Your task to perform on an android device: refresh tabs in the chrome app Image 0: 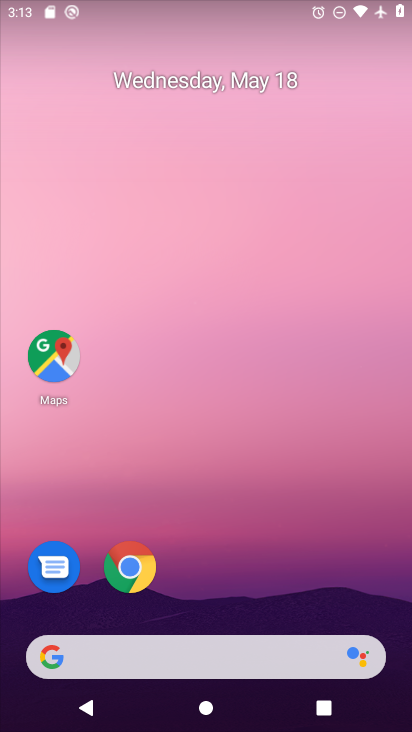
Step 0: drag from (276, 528) to (250, 224)
Your task to perform on an android device: refresh tabs in the chrome app Image 1: 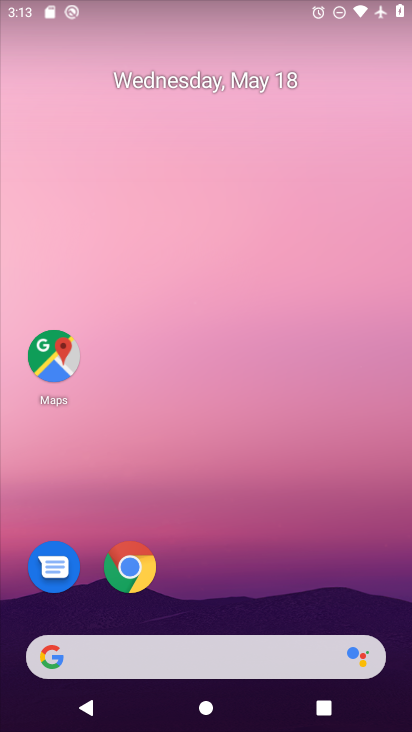
Step 1: drag from (234, 537) to (242, 224)
Your task to perform on an android device: refresh tabs in the chrome app Image 2: 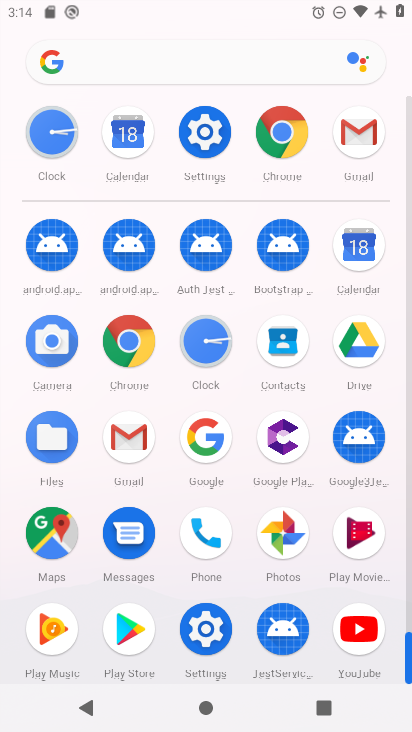
Step 2: click (273, 120)
Your task to perform on an android device: refresh tabs in the chrome app Image 3: 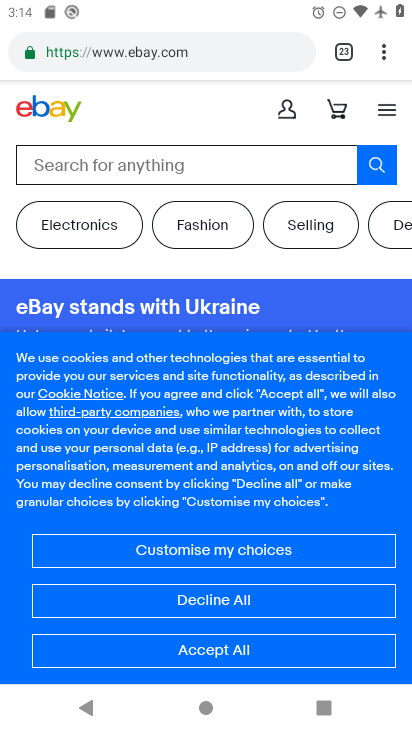
Step 3: click (374, 45)
Your task to perform on an android device: refresh tabs in the chrome app Image 4: 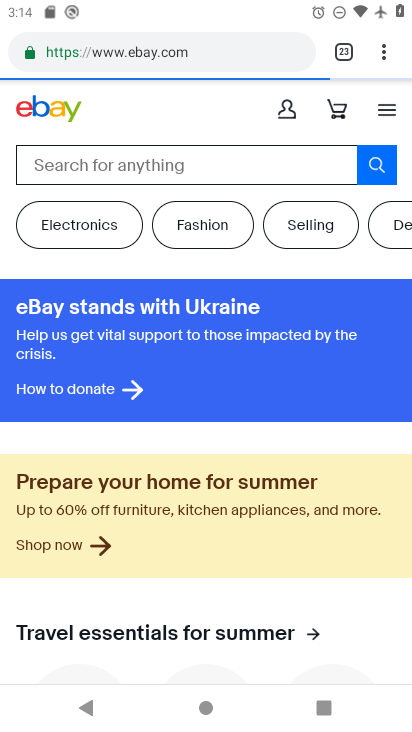
Step 4: click (378, 57)
Your task to perform on an android device: refresh tabs in the chrome app Image 5: 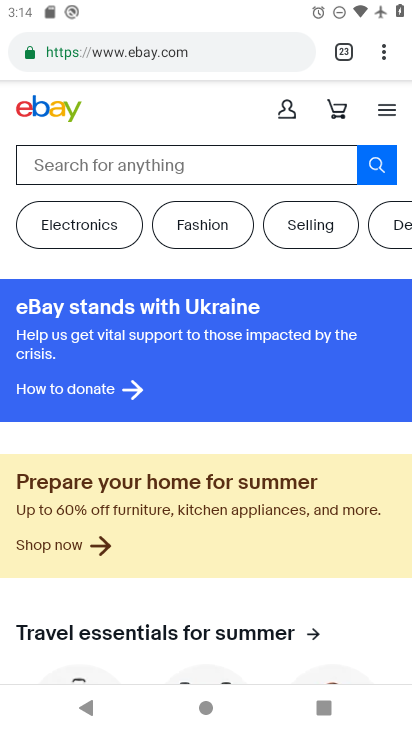
Step 5: click (390, 49)
Your task to perform on an android device: refresh tabs in the chrome app Image 6: 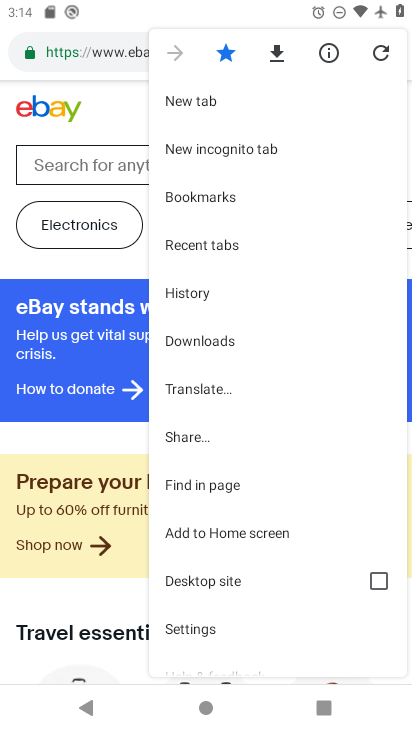
Step 6: click (370, 50)
Your task to perform on an android device: refresh tabs in the chrome app Image 7: 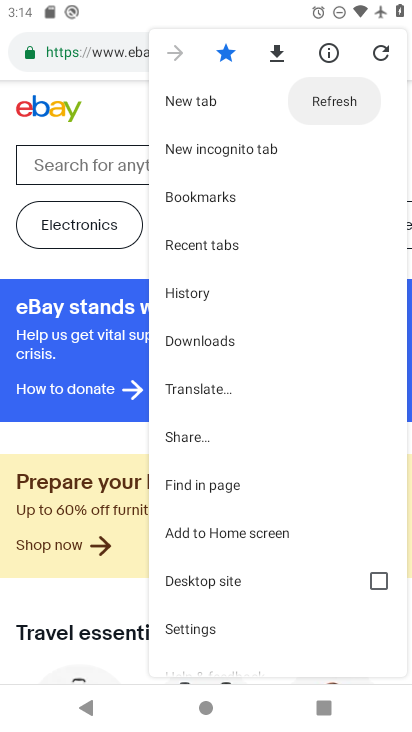
Step 7: task complete